Your task to perform on an android device: Go to Wikipedia Image 0: 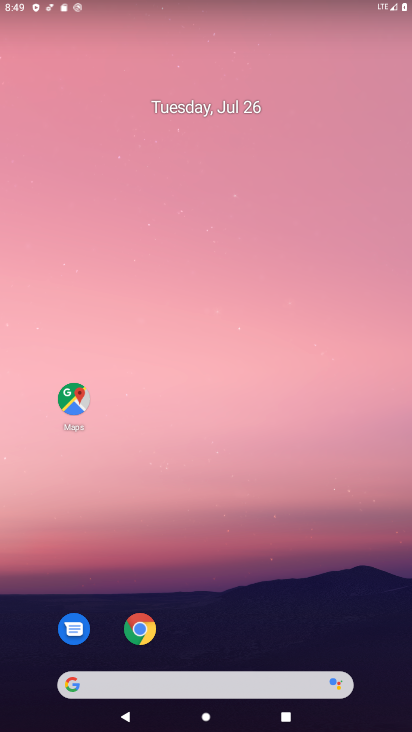
Step 0: drag from (182, 670) to (122, 49)
Your task to perform on an android device: Go to Wikipedia Image 1: 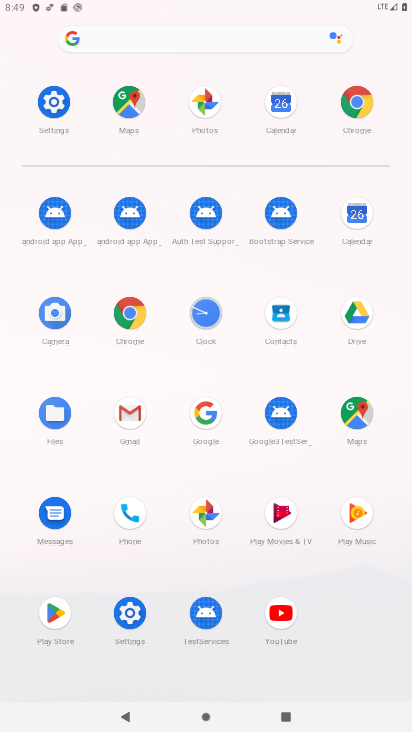
Step 1: click (137, 309)
Your task to perform on an android device: Go to Wikipedia Image 2: 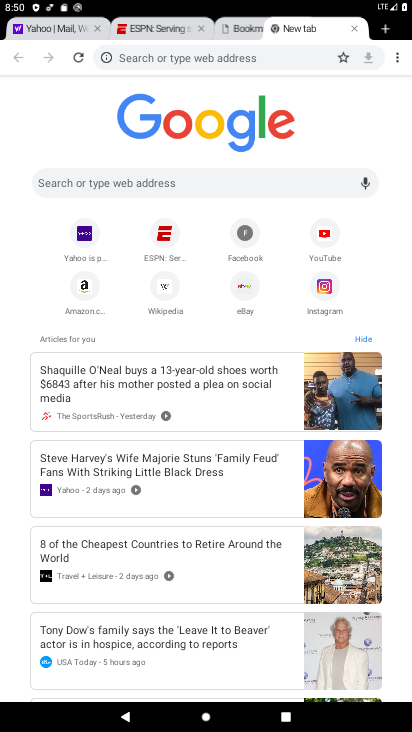
Step 2: click (158, 290)
Your task to perform on an android device: Go to Wikipedia Image 3: 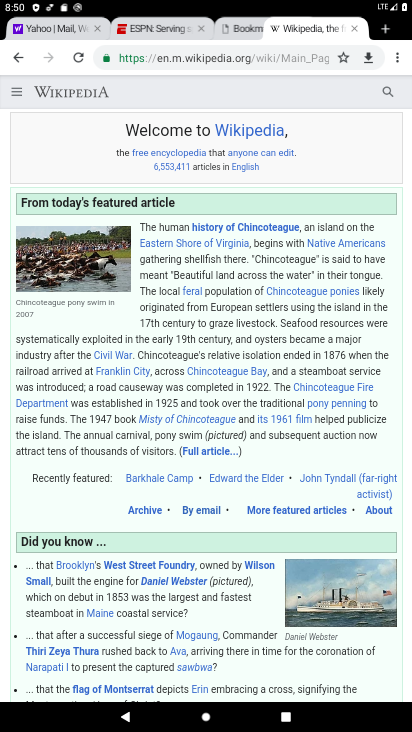
Step 3: task complete